Your task to perform on an android device: open a bookmark in the chrome app Image 0: 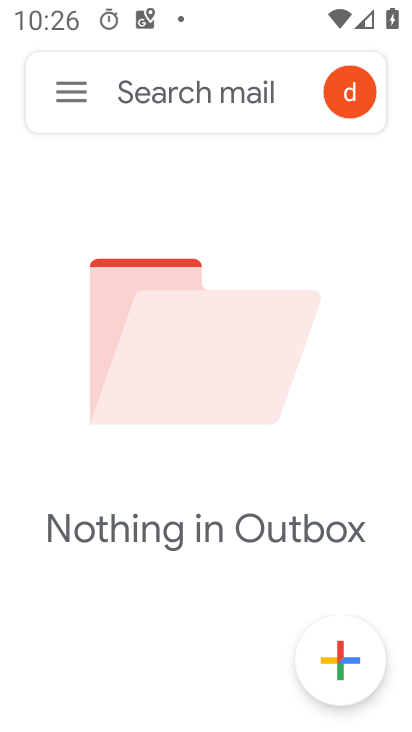
Step 0: press home button
Your task to perform on an android device: open a bookmark in the chrome app Image 1: 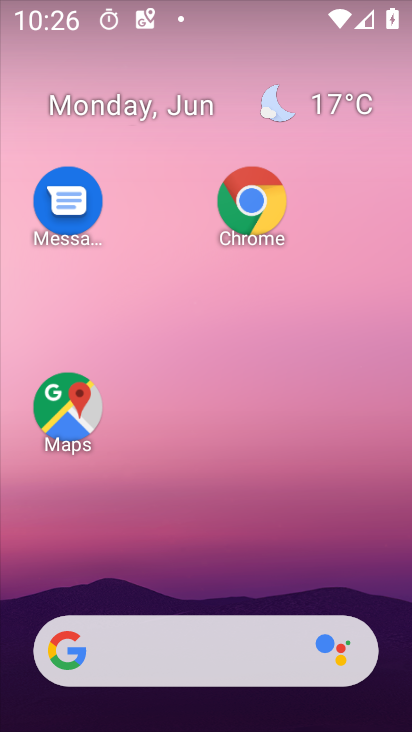
Step 1: drag from (231, 584) to (133, 6)
Your task to perform on an android device: open a bookmark in the chrome app Image 2: 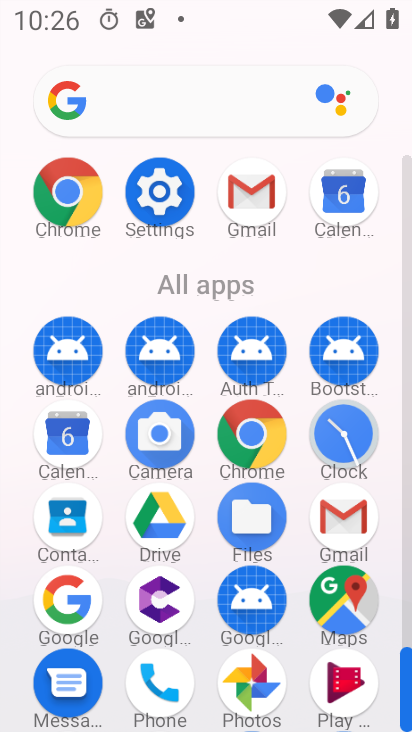
Step 2: click (60, 186)
Your task to perform on an android device: open a bookmark in the chrome app Image 3: 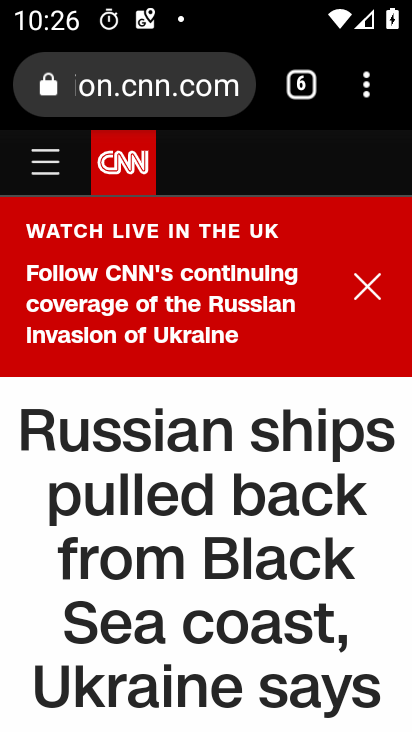
Step 3: click (370, 86)
Your task to perform on an android device: open a bookmark in the chrome app Image 4: 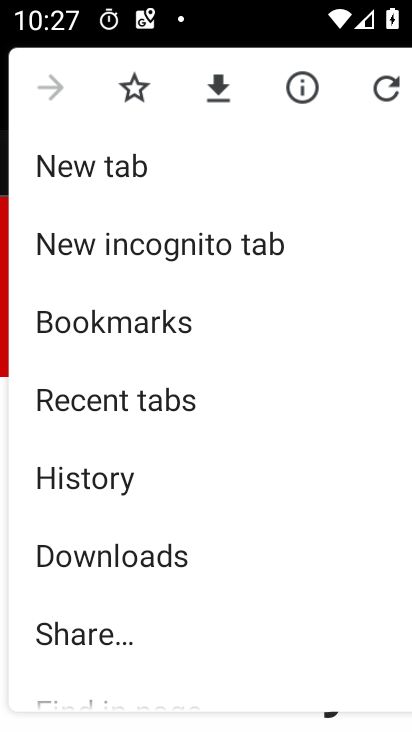
Step 4: click (165, 323)
Your task to perform on an android device: open a bookmark in the chrome app Image 5: 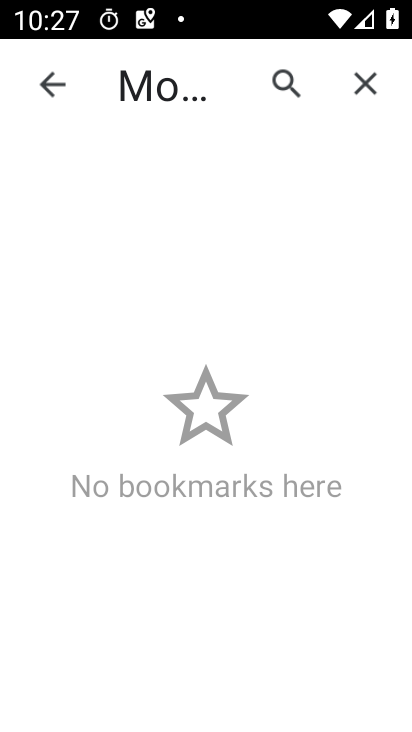
Step 5: task complete